Your task to perform on an android device: make emails show in primary in the gmail app Image 0: 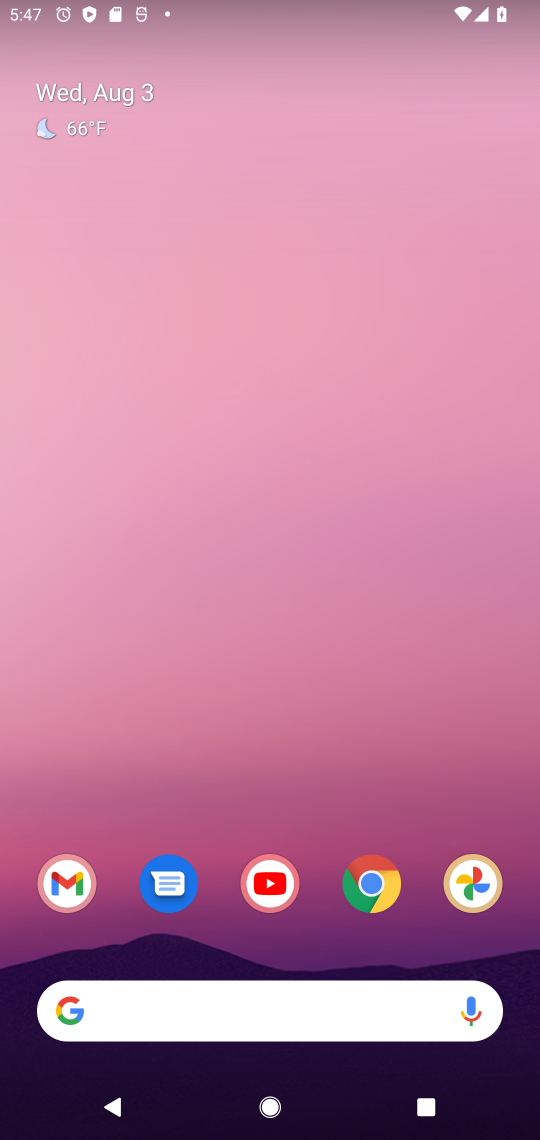
Step 0: drag from (225, 1002) to (299, 155)
Your task to perform on an android device: make emails show in primary in the gmail app Image 1: 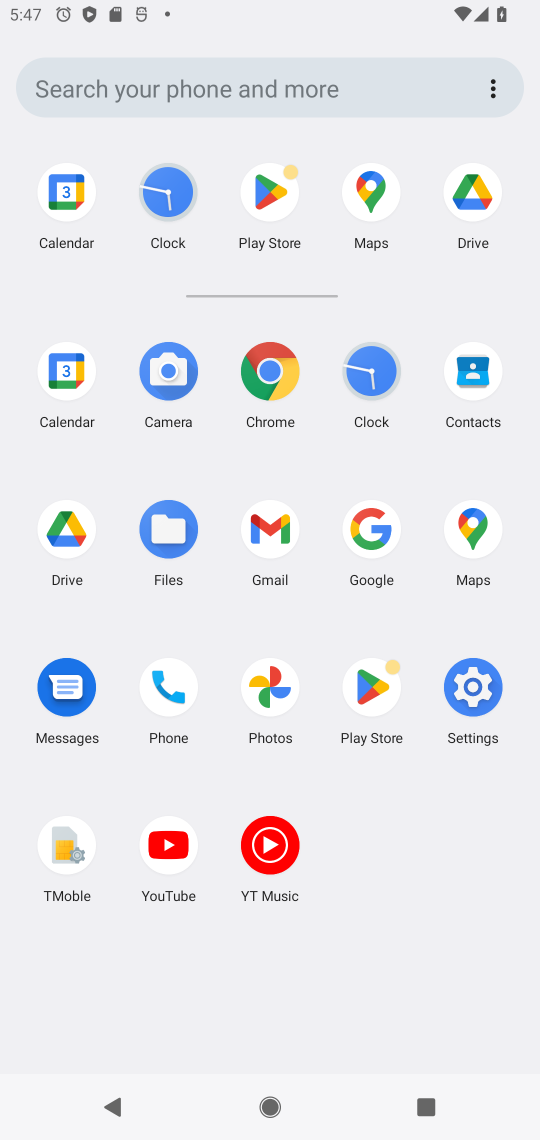
Step 1: click (259, 521)
Your task to perform on an android device: make emails show in primary in the gmail app Image 2: 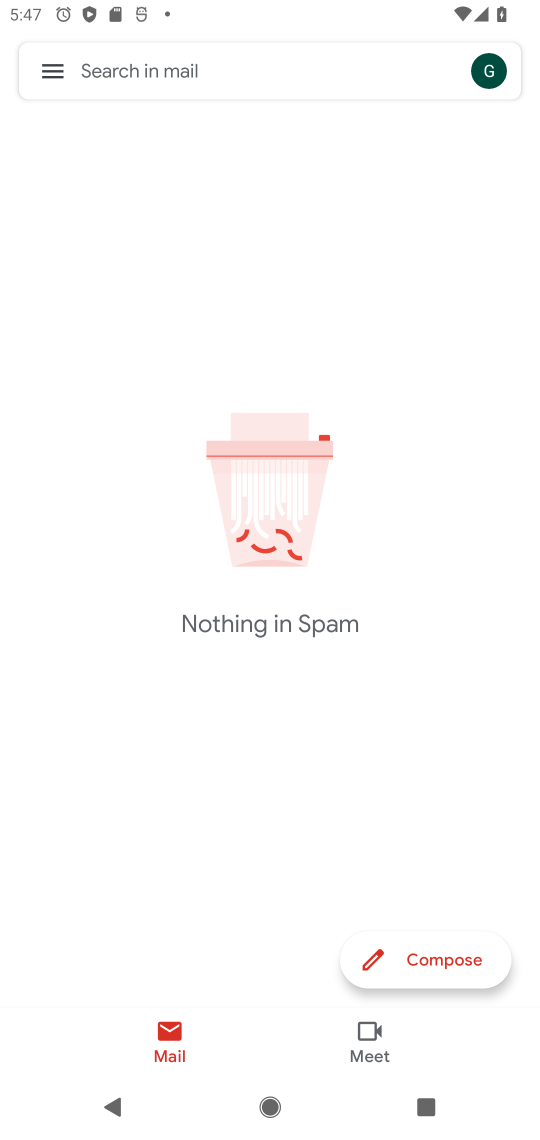
Step 2: click (59, 61)
Your task to perform on an android device: make emails show in primary in the gmail app Image 3: 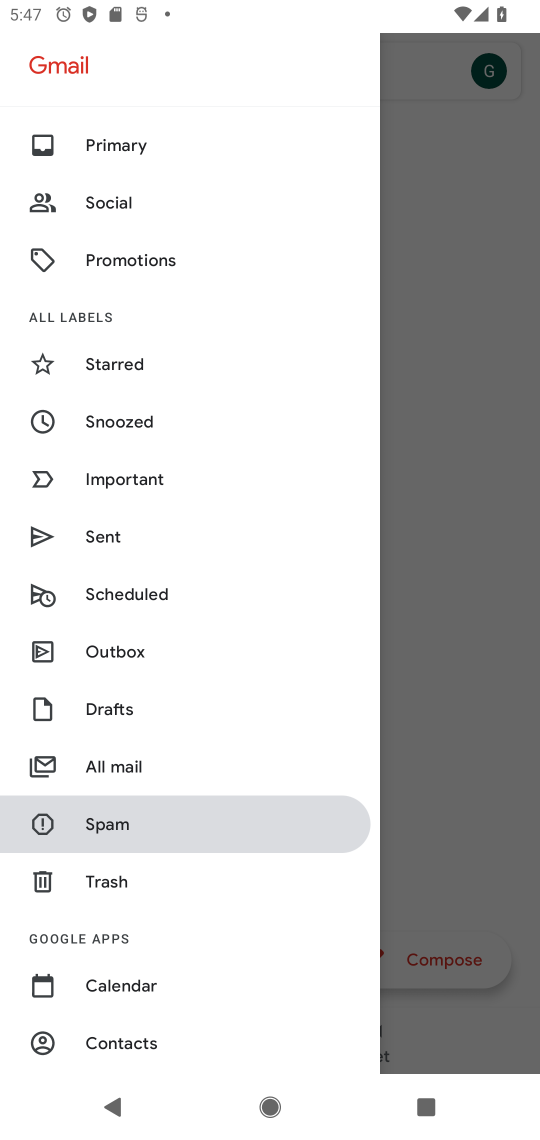
Step 3: drag from (138, 1033) to (156, 320)
Your task to perform on an android device: make emails show in primary in the gmail app Image 4: 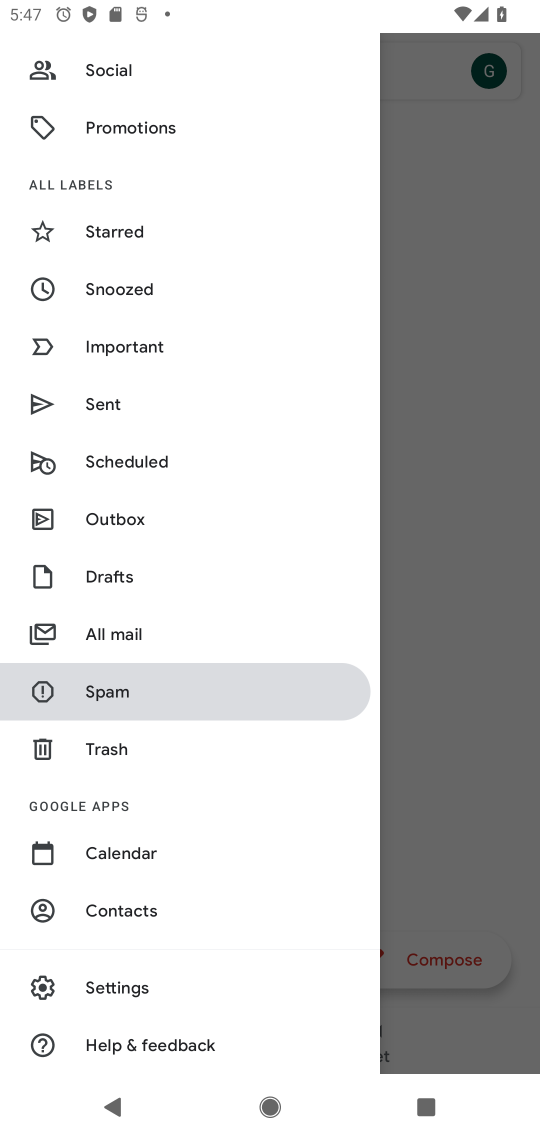
Step 4: drag from (112, 65) to (151, 582)
Your task to perform on an android device: make emails show in primary in the gmail app Image 5: 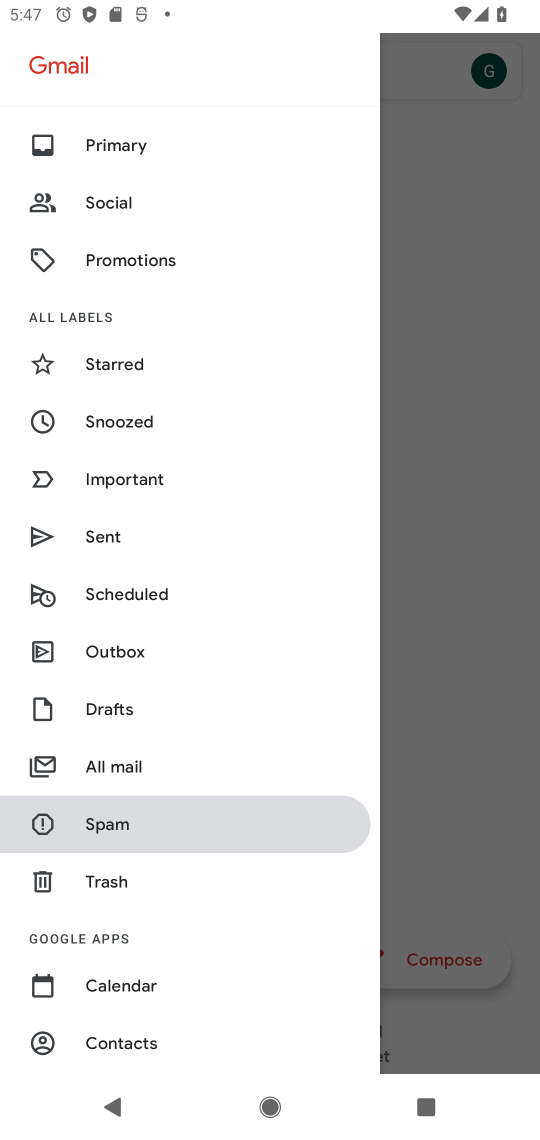
Step 5: click (129, 153)
Your task to perform on an android device: make emails show in primary in the gmail app Image 6: 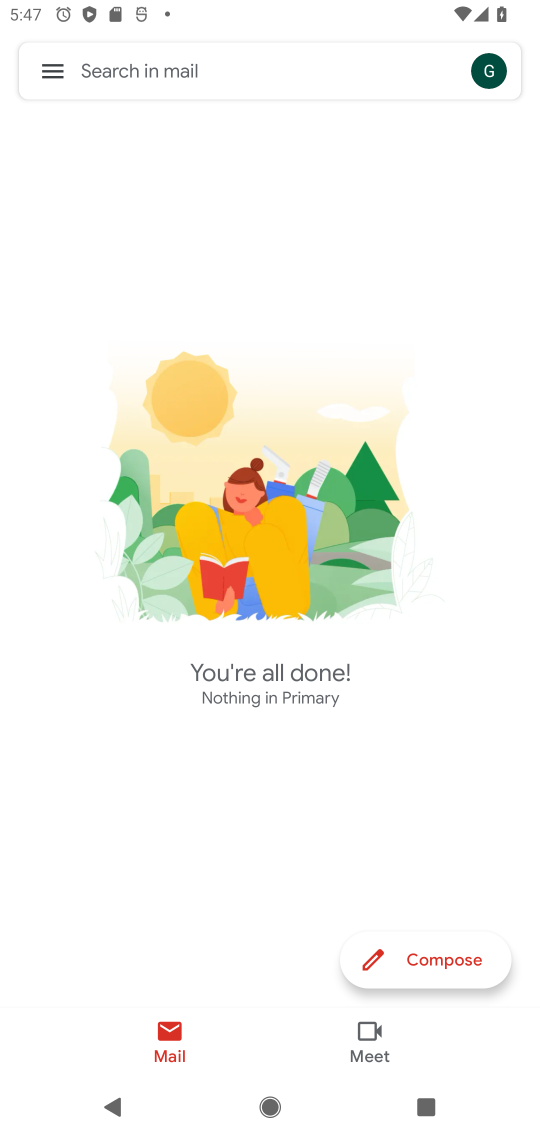
Step 6: task complete